Your task to perform on an android device: open app "Spotify" (install if not already installed) and go to login screen Image 0: 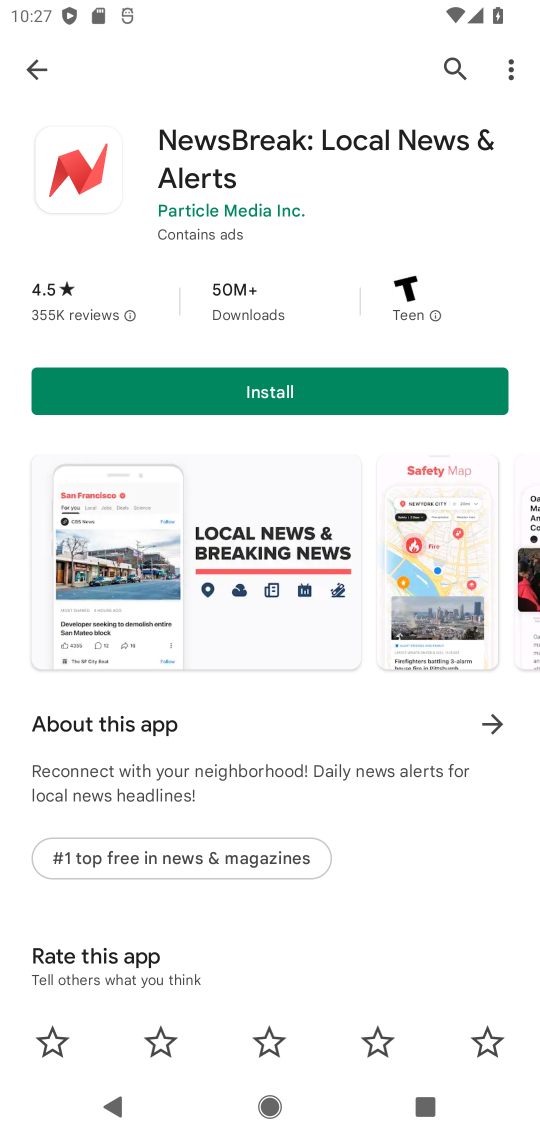
Step 0: press home button
Your task to perform on an android device: open app "Spotify" (install if not already installed) and go to login screen Image 1: 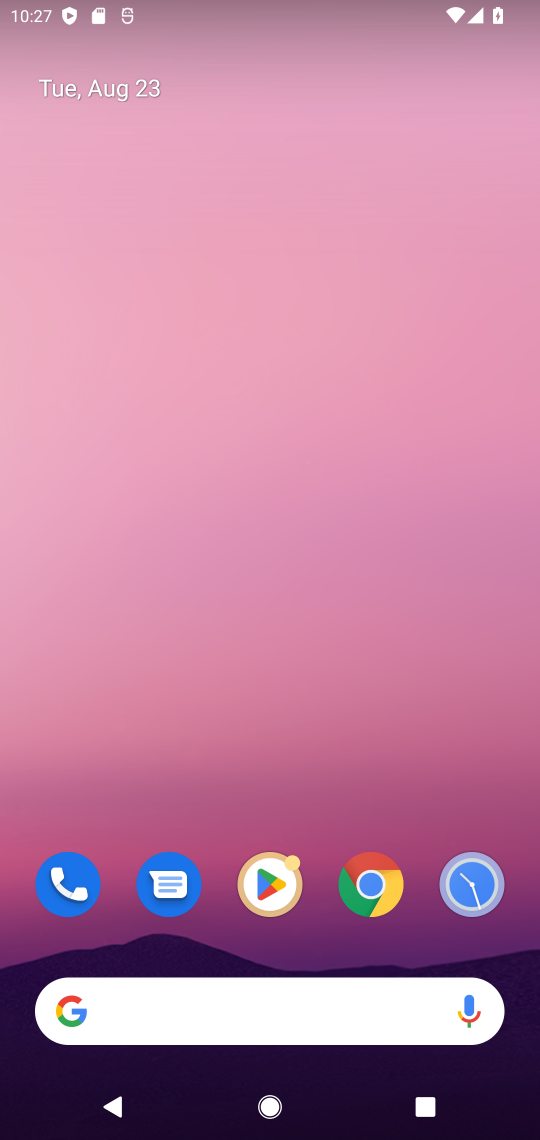
Step 1: click (276, 886)
Your task to perform on an android device: open app "Spotify" (install if not already installed) and go to login screen Image 2: 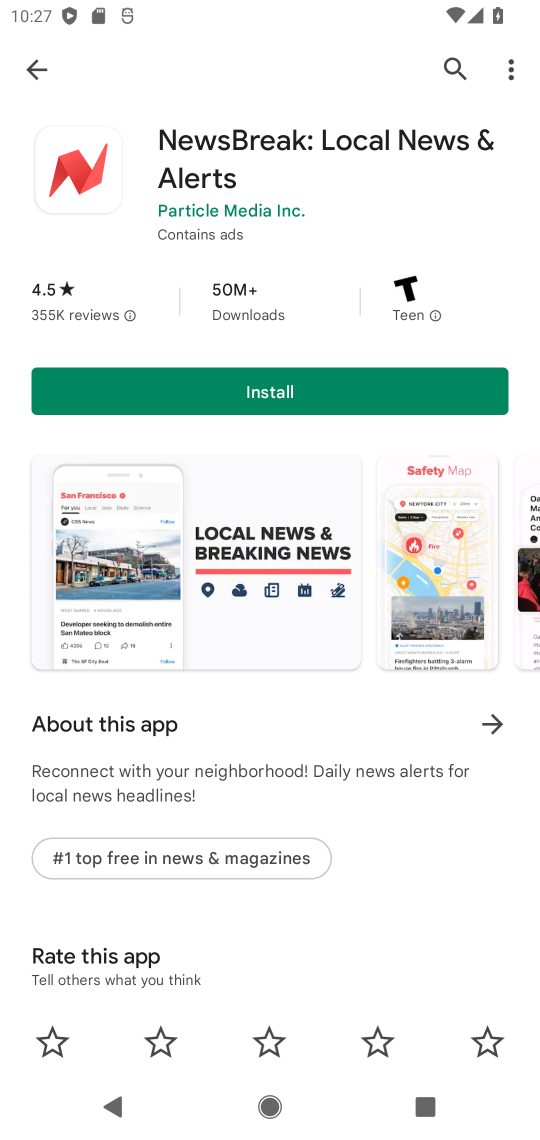
Step 2: click (451, 56)
Your task to perform on an android device: open app "Spotify" (install if not already installed) and go to login screen Image 3: 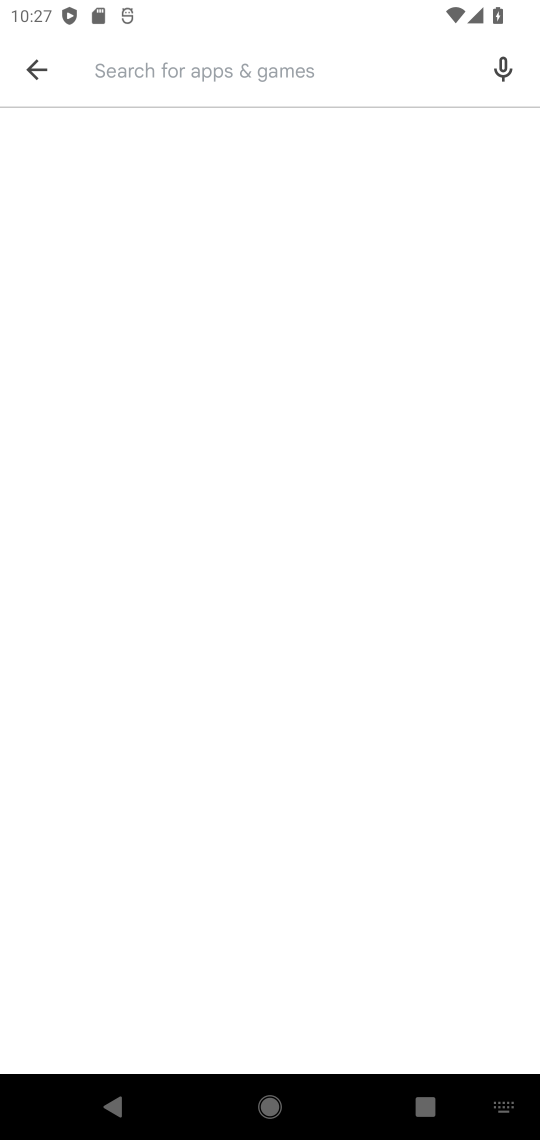
Step 3: type "Spotify"
Your task to perform on an android device: open app "Spotify" (install if not already installed) and go to login screen Image 4: 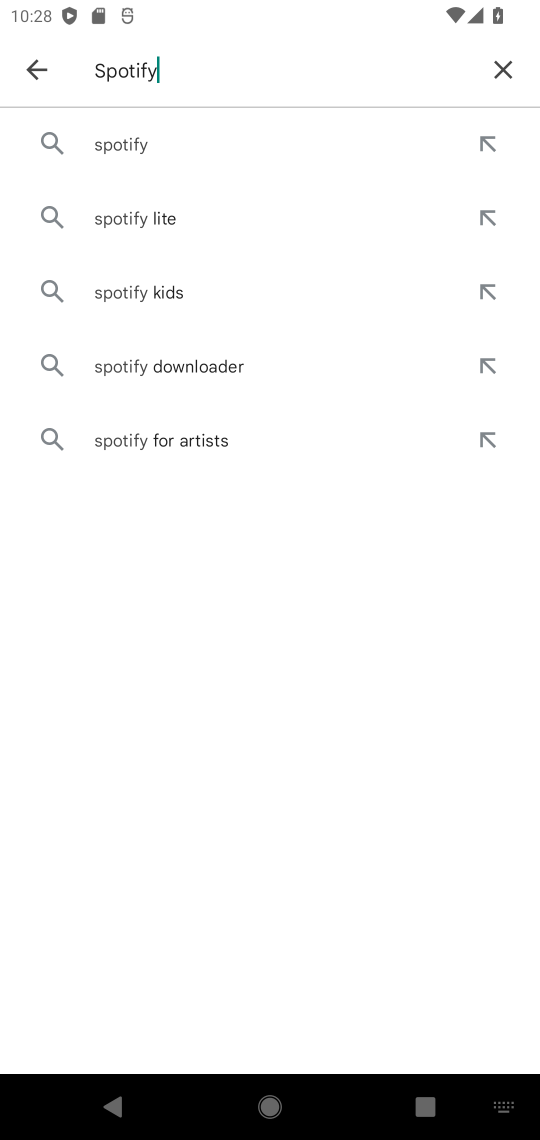
Step 4: click (110, 133)
Your task to perform on an android device: open app "Spotify" (install if not already installed) and go to login screen Image 5: 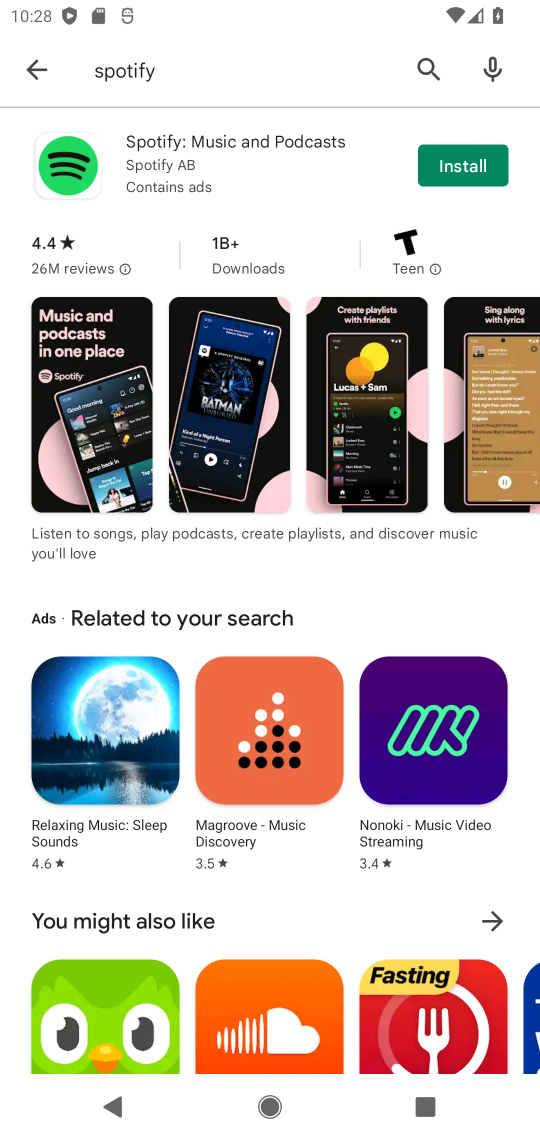
Step 5: click (454, 173)
Your task to perform on an android device: open app "Spotify" (install if not already installed) and go to login screen Image 6: 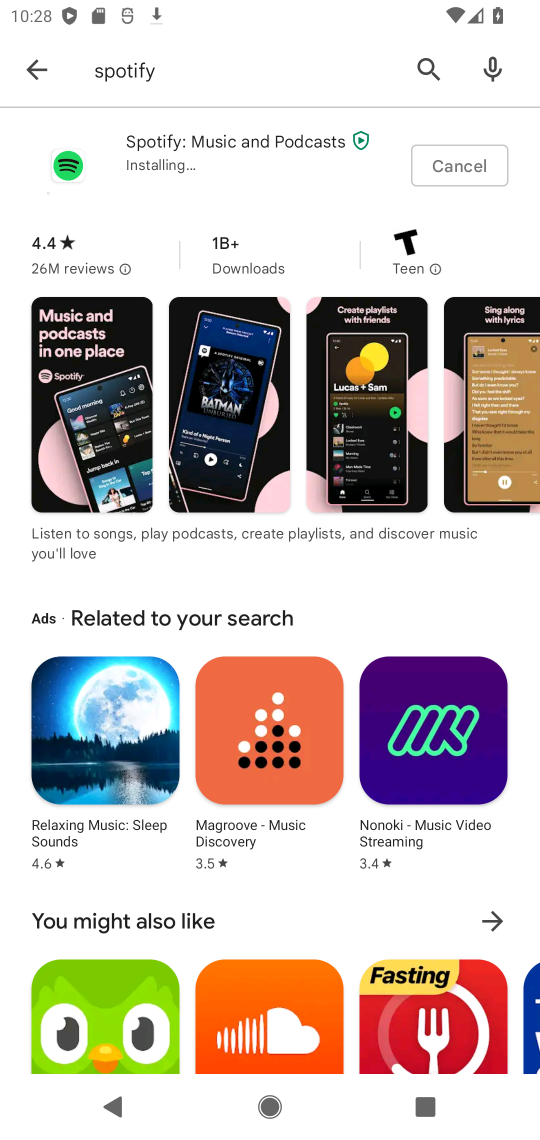
Step 6: click (188, 146)
Your task to perform on an android device: open app "Spotify" (install if not already installed) and go to login screen Image 7: 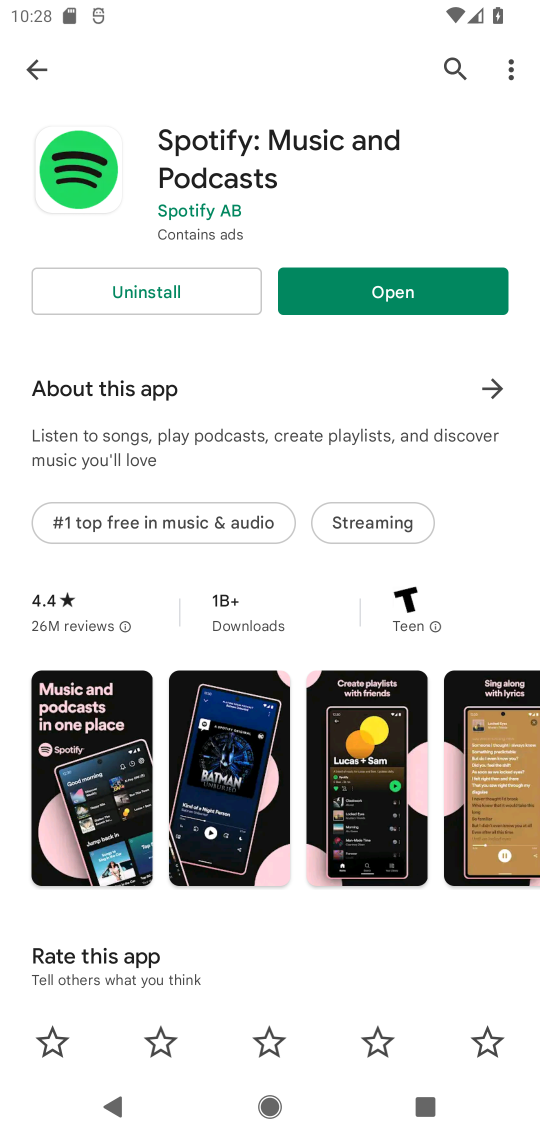
Step 7: click (390, 290)
Your task to perform on an android device: open app "Spotify" (install if not already installed) and go to login screen Image 8: 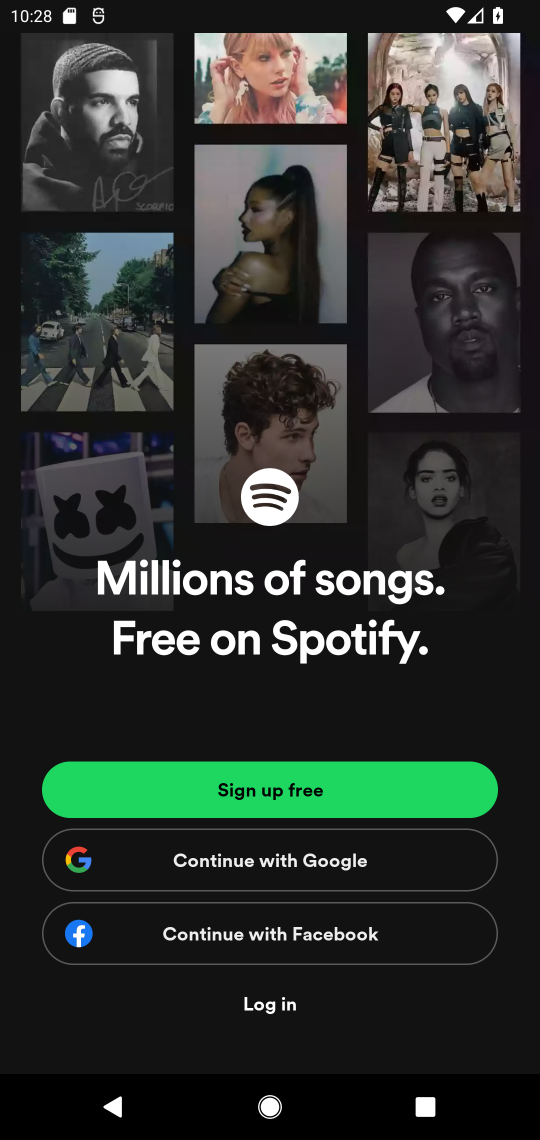
Step 8: click (262, 1009)
Your task to perform on an android device: open app "Spotify" (install if not already installed) and go to login screen Image 9: 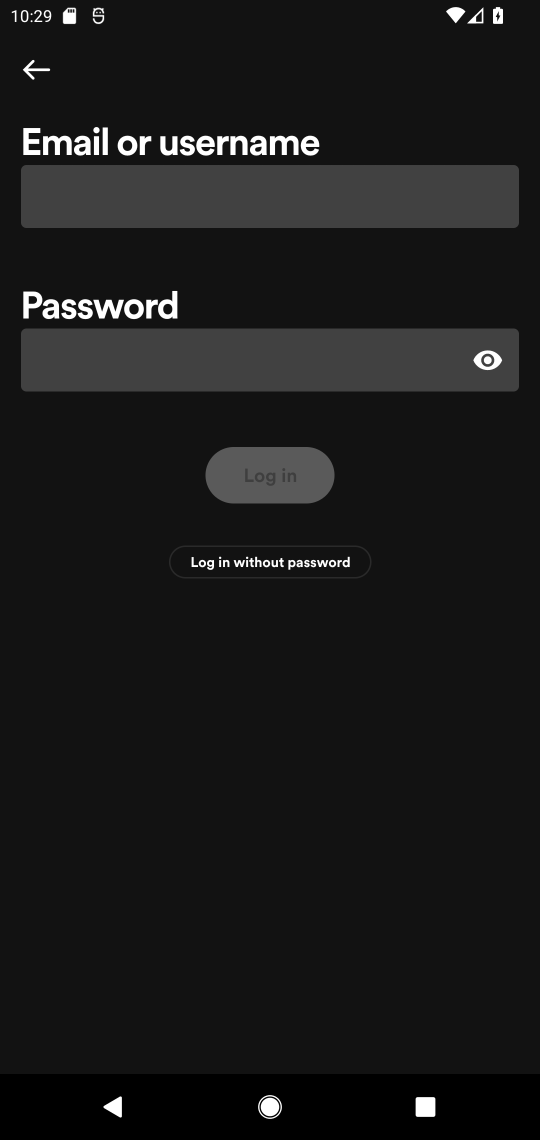
Step 9: task complete